Your task to perform on an android device: find photos in the google photos app Image 0: 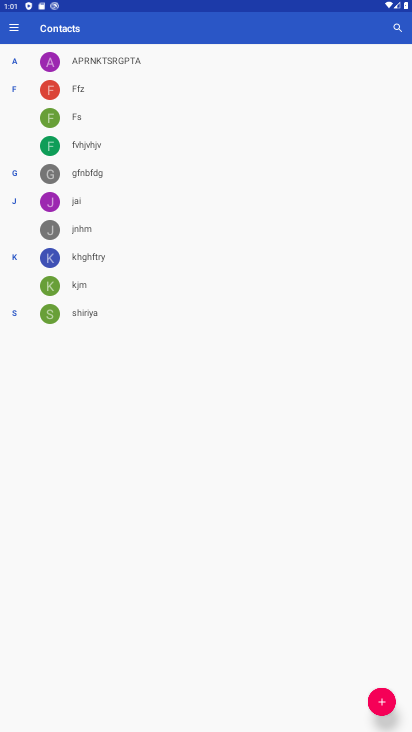
Step 0: press home button
Your task to perform on an android device: find photos in the google photos app Image 1: 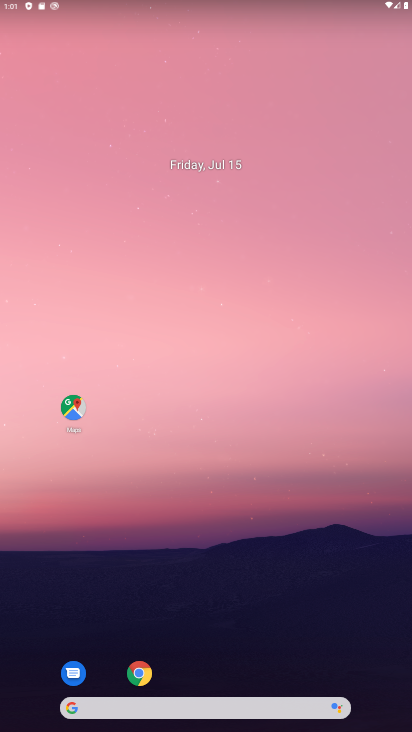
Step 1: drag from (346, 588) to (311, 64)
Your task to perform on an android device: find photos in the google photos app Image 2: 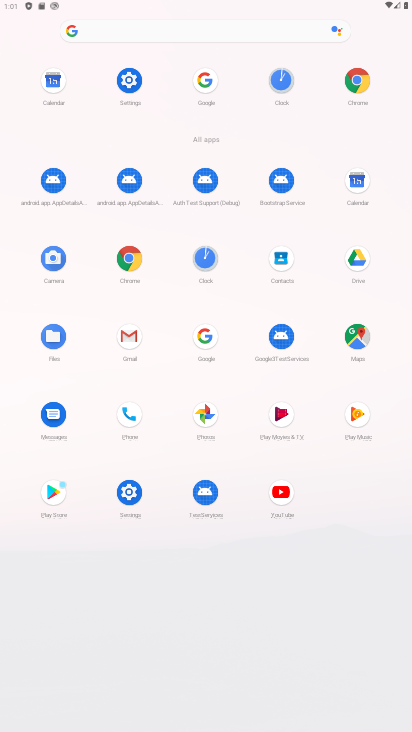
Step 2: click (194, 423)
Your task to perform on an android device: find photos in the google photos app Image 3: 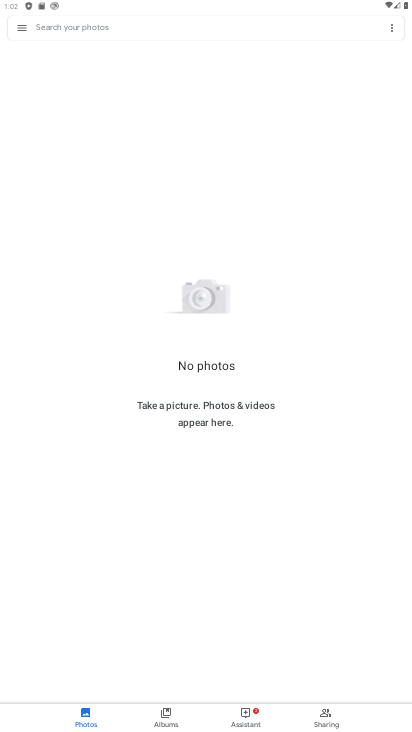
Step 3: task complete